Your task to perform on an android device: turn off notifications settings in the gmail app Image 0: 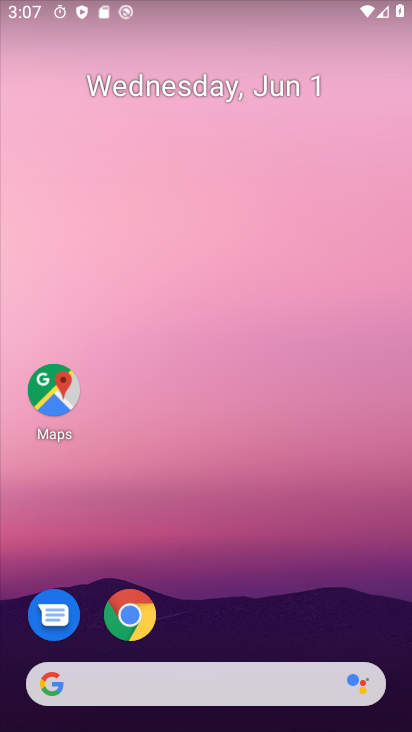
Step 0: drag from (332, 602) to (335, 32)
Your task to perform on an android device: turn off notifications settings in the gmail app Image 1: 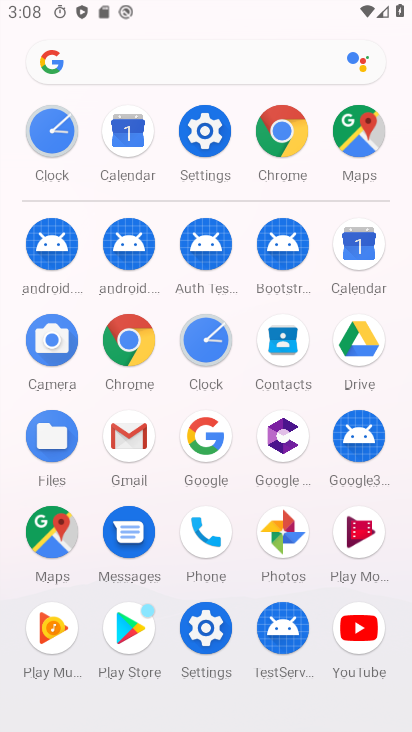
Step 1: click (138, 437)
Your task to perform on an android device: turn off notifications settings in the gmail app Image 2: 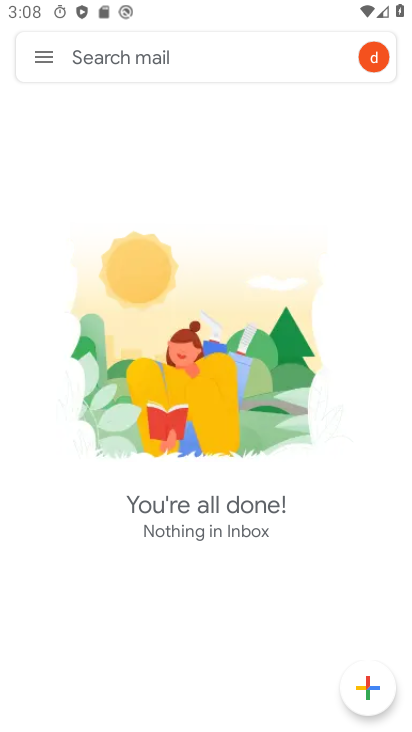
Step 2: click (37, 56)
Your task to perform on an android device: turn off notifications settings in the gmail app Image 3: 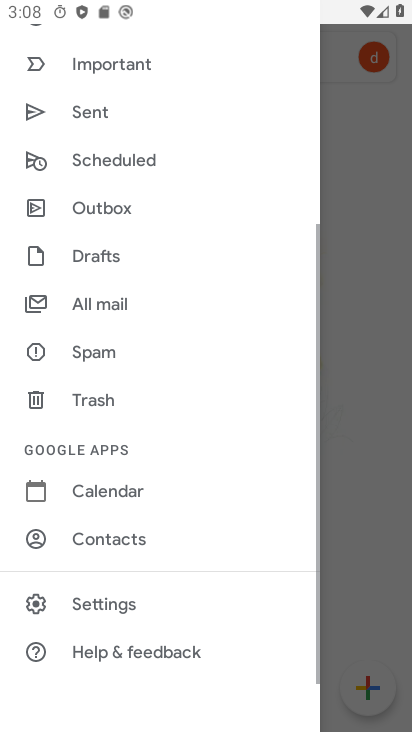
Step 3: click (132, 609)
Your task to perform on an android device: turn off notifications settings in the gmail app Image 4: 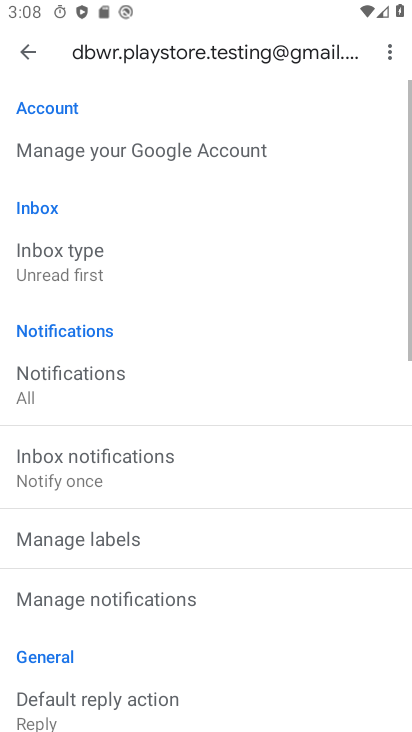
Step 4: drag from (172, 663) to (242, 226)
Your task to perform on an android device: turn off notifications settings in the gmail app Image 5: 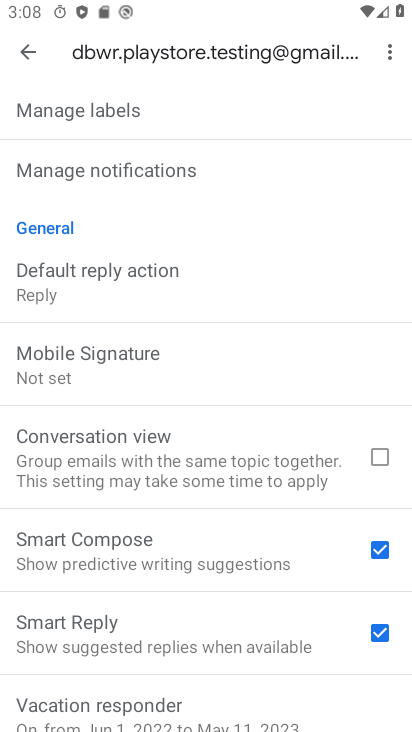
Step 5: click (142, 158)
Your task to perform on an android device: turn off notifications settings in the gmail app Image 6: 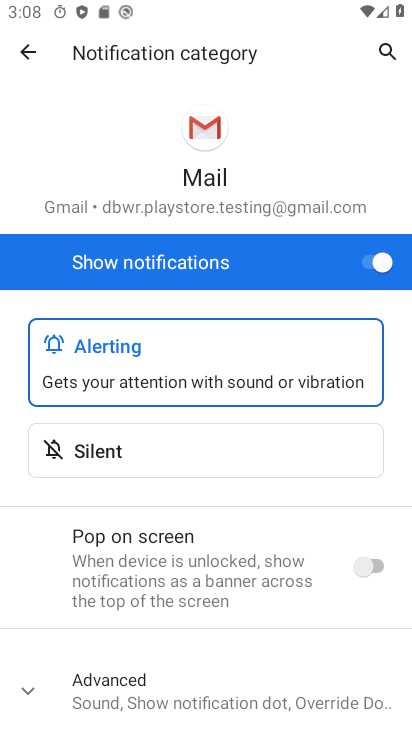
Step 6: drag from (271, 618) to (252, 286)
Your task to perform on an android device: turn off notifications settings in the gmail app Image 7: 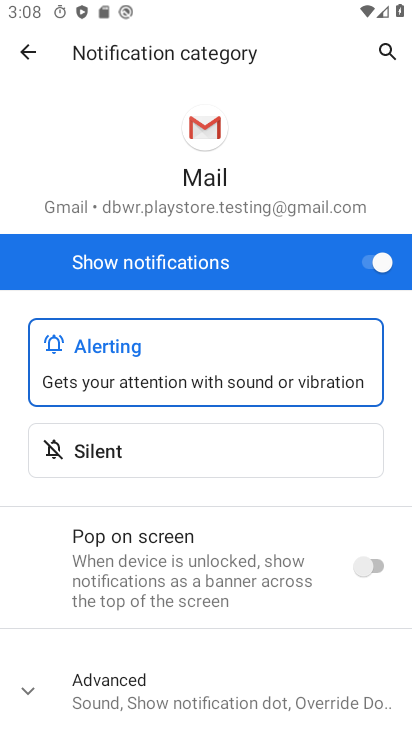
Step 7: click (380, 259)
Your task to perform on an android device: turn off notifications settings in the gmail app Image 8: 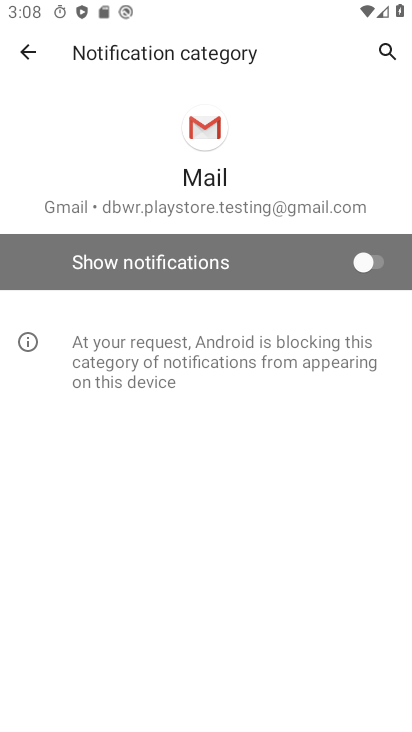
Step 8: task complete